Your task to perform on an android device: Open Google Maps and go to "Timeline" Image 0: 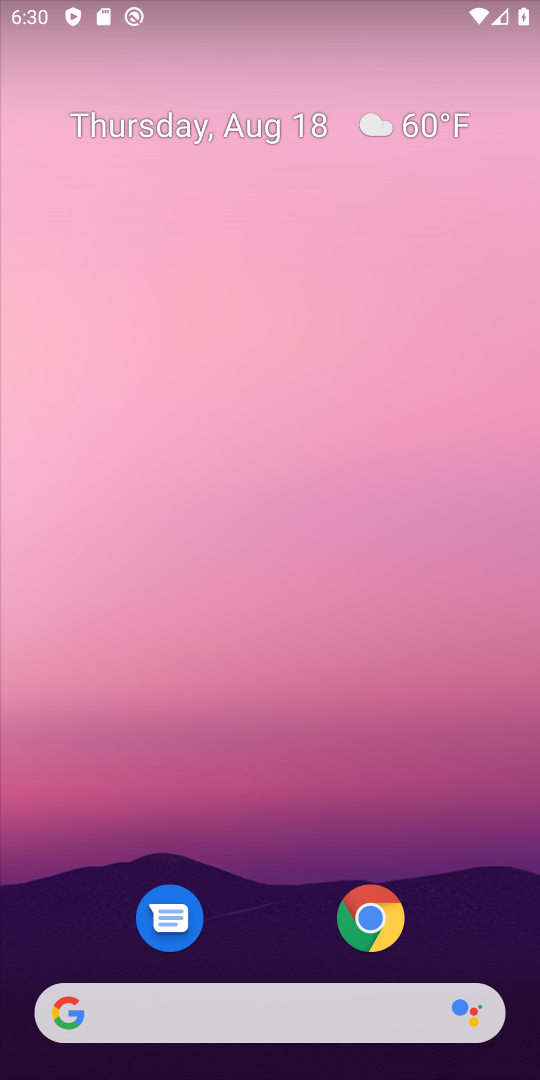
Step 0: drag from (266, 954) to (412, 310)
Your task to perform on an android device: Open Google Maps and go to "Timeline" Image 1: 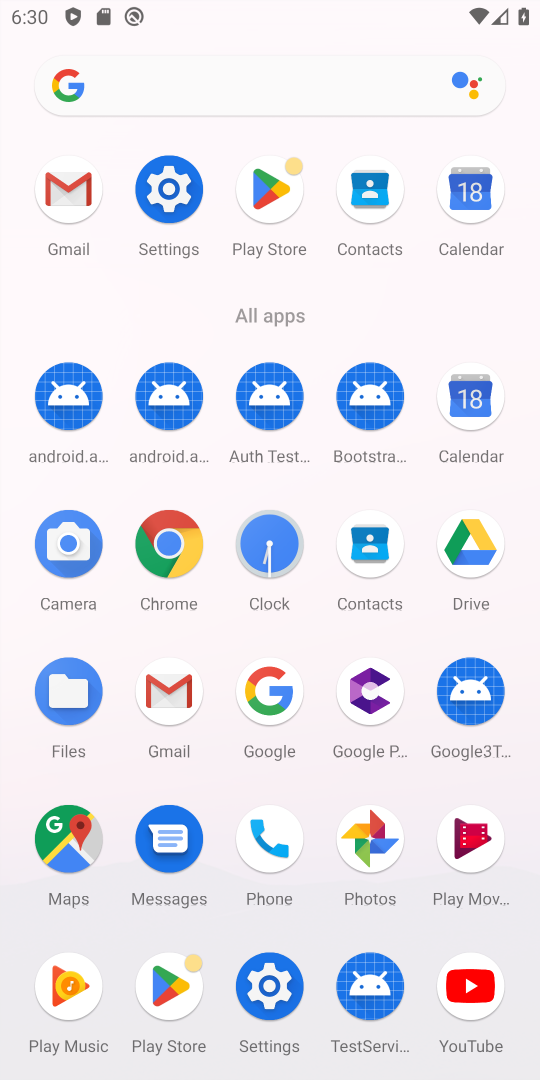
Step 1: click (58, 851)
Your task to perform on an android device: Open Google Maps and go to "Timeline" Image 2: 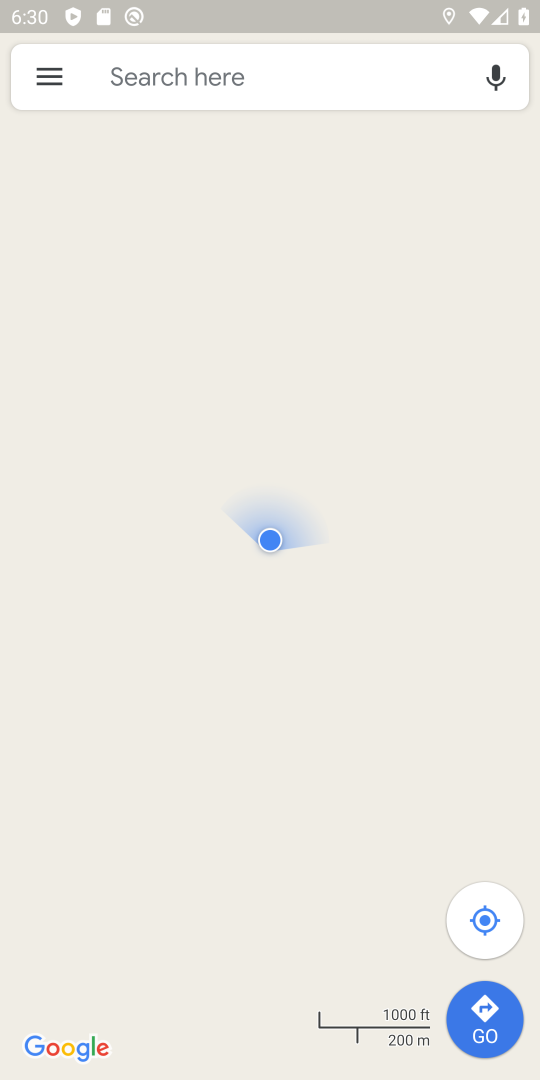
Step 2: click (46, 80)
Your task to perform on an android device: Open Google Maps and go to "Timeline" Image 3: 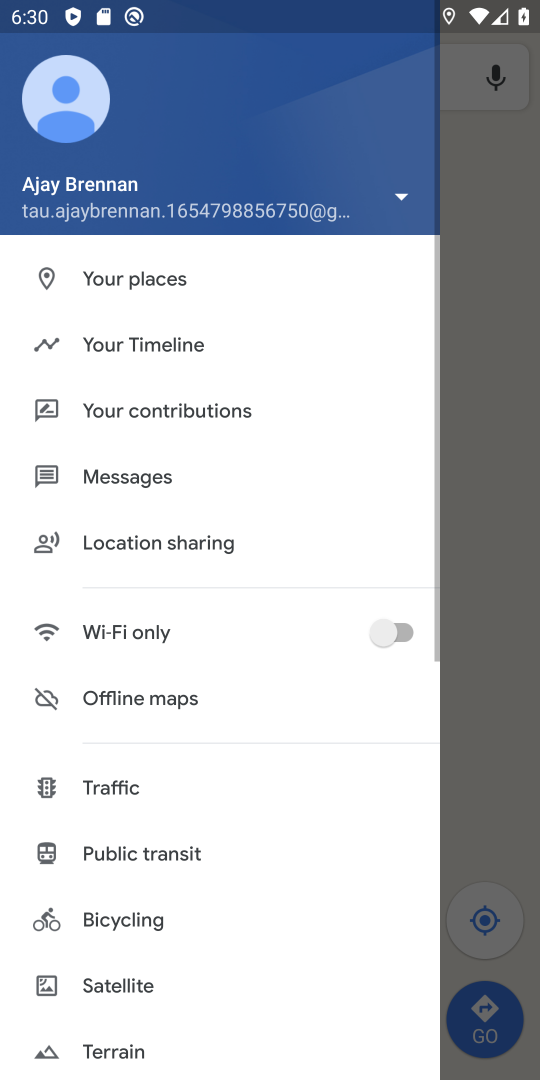
Step 3: click (148, 348)
Your task to perform on an android device: Open Google Maps and go to "Timeline" Image 4: 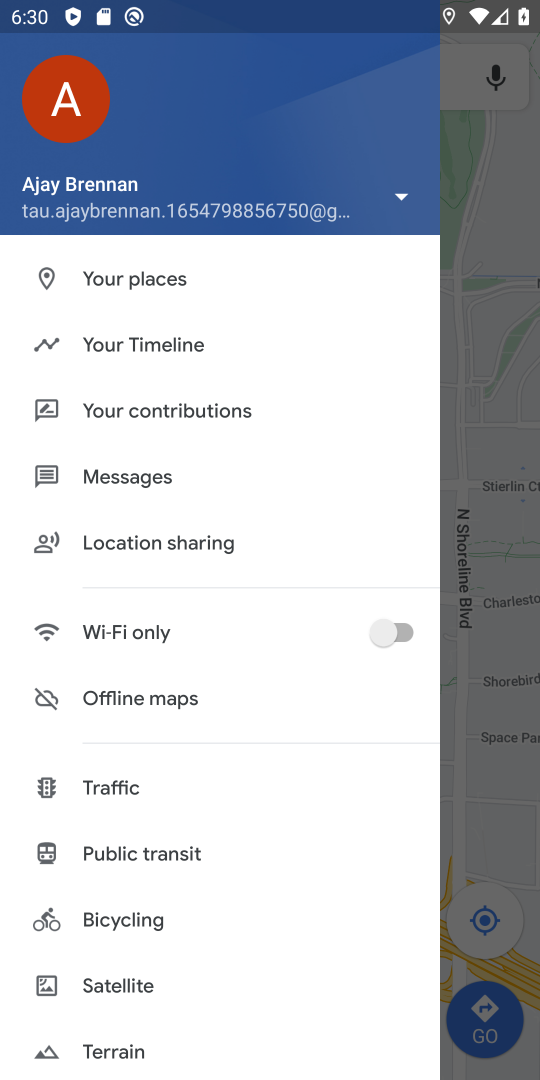
Step 4: click (148, 348)
Your task to perform on an android device: Open Google Maps and go to "Timeline" Image 5: 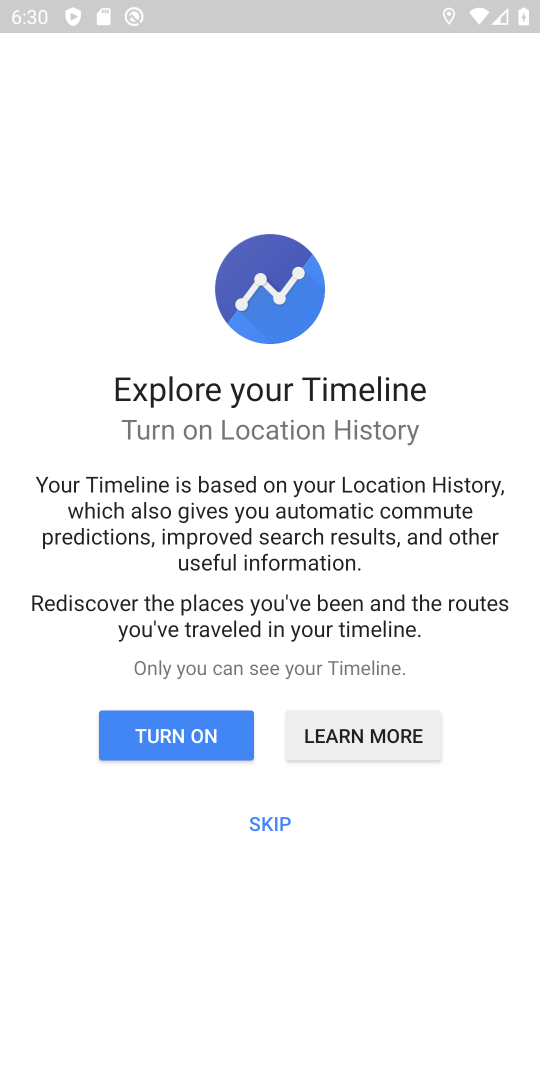
Step 5: click (150, 740)
Your task to perform on an android device: Open Google Maps and go to "Timeline" Image 6: 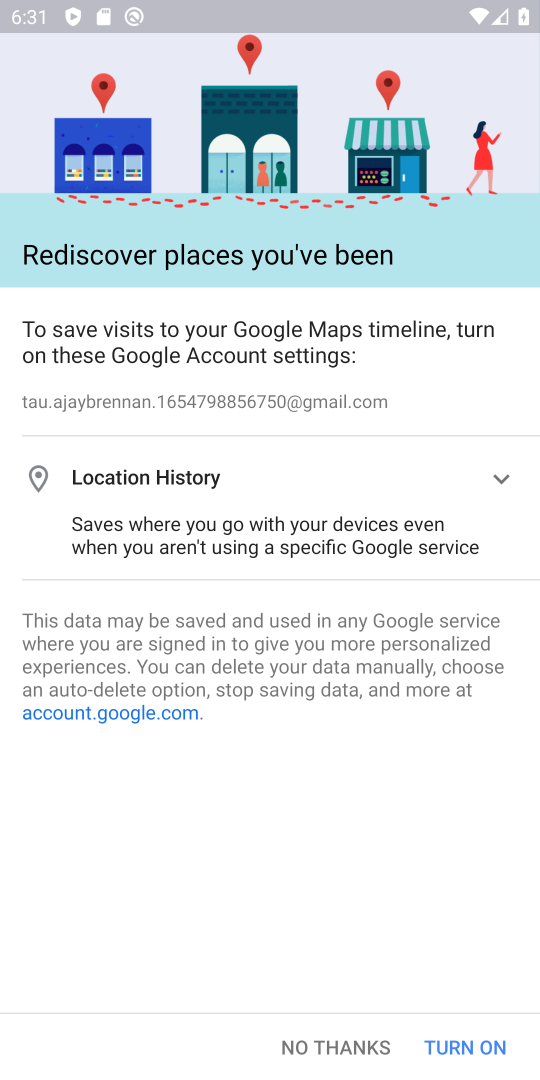
Step 6: task complete